Your task to perform on an android device: turn on location history Image 0: 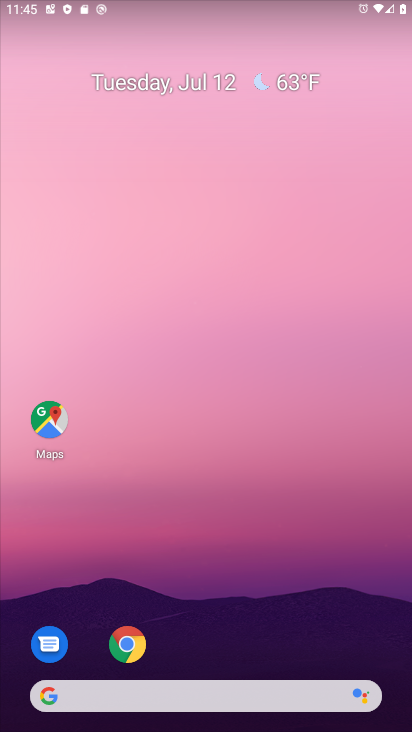
Step 0: drag from (201, 700) to (260, 58)
Your task to perform on an android device: turn on location history Image 1: 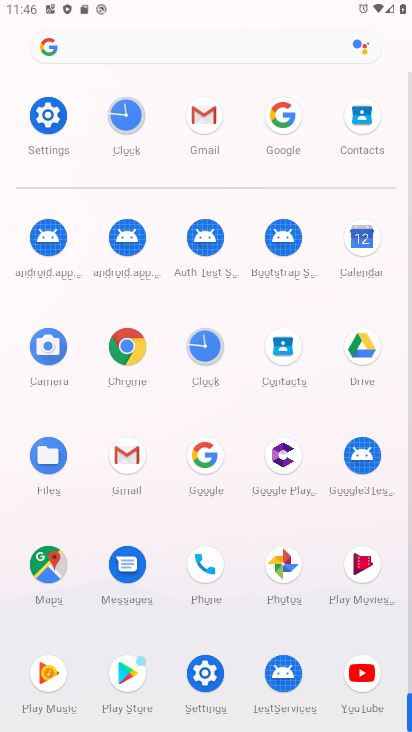
Step 1: click (48, 116)
Your task to perform on an android device: turn on location history Image 2: 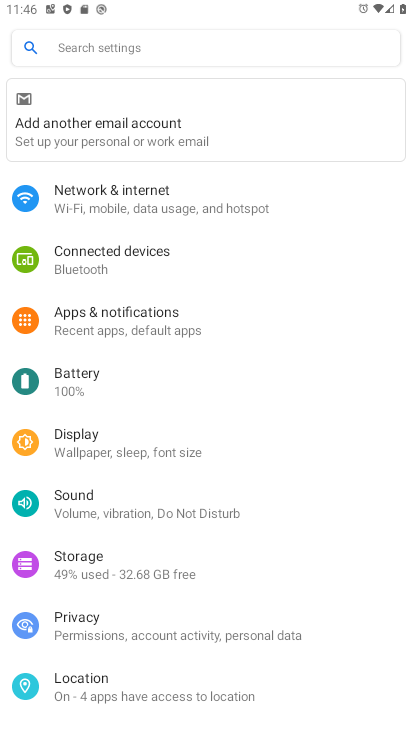
Step 2: click (91, 687)
Your task to perform on an android device: turn on location history Image 3: 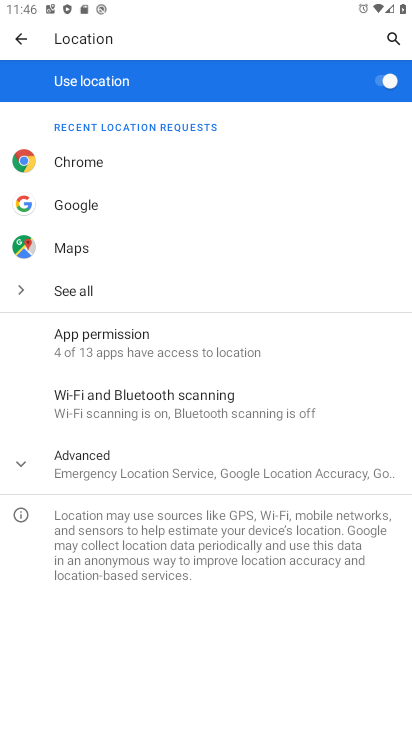
Step 3: click (131, 469)
Your task to perform on an android device: turn on location history Image 4: 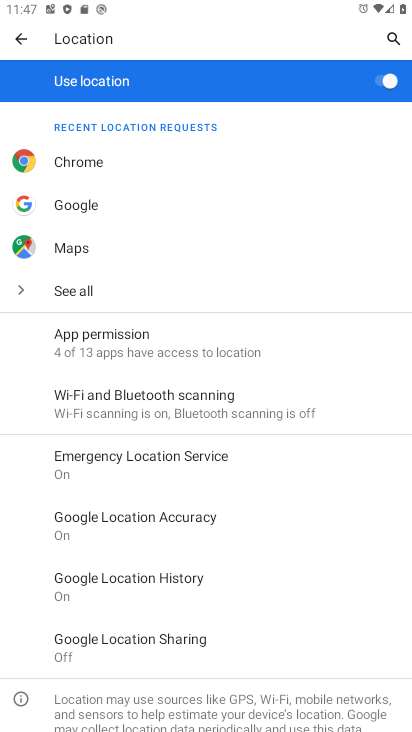
Step 4: click (153, 585)
Your task to perform on an android device: turn on location history Image 5: 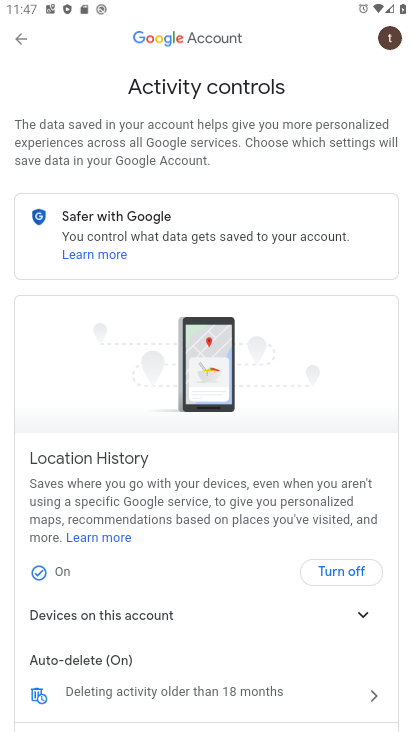
Step 5: task complete